Your task to perform on an android device: Open the calendar app, open the side menu, and click the "Day" option Image 0: 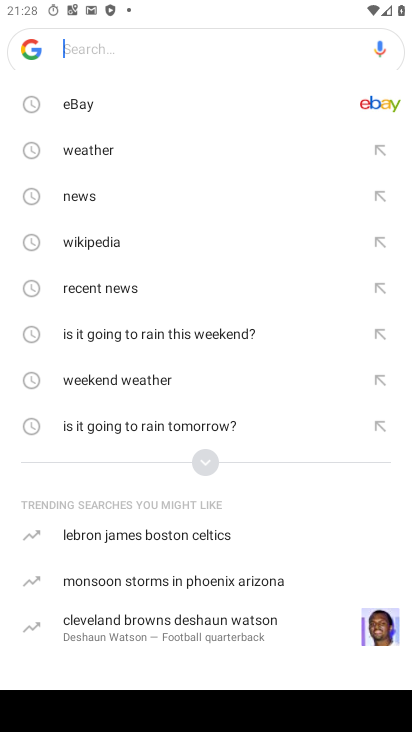
Step 0: press home button
Your task to perform on an android device: Open the calendar app, open the side menu, and click the "Day" option Image 1: 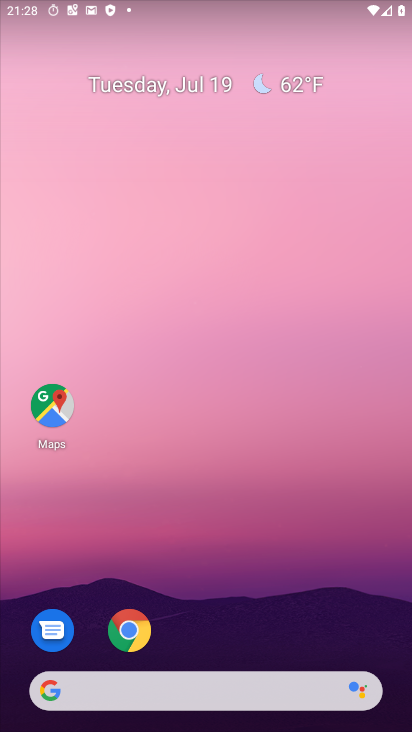
Step 1: drag from (33, 687) to (310, 5)
Your task to perform on an android device: Open the calendar app, open the side menu, and click the "Day" option Image 2: 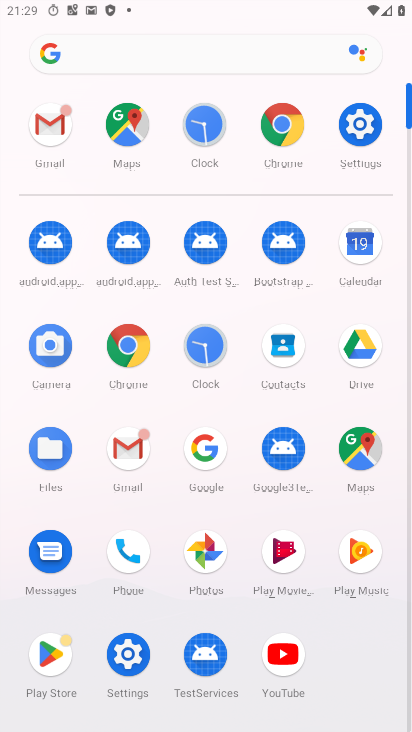
Step 2: click (367, 251)
Your task to perform on an android device: Open the calendar app, open the side menu, and click the "Day" option Image 3: 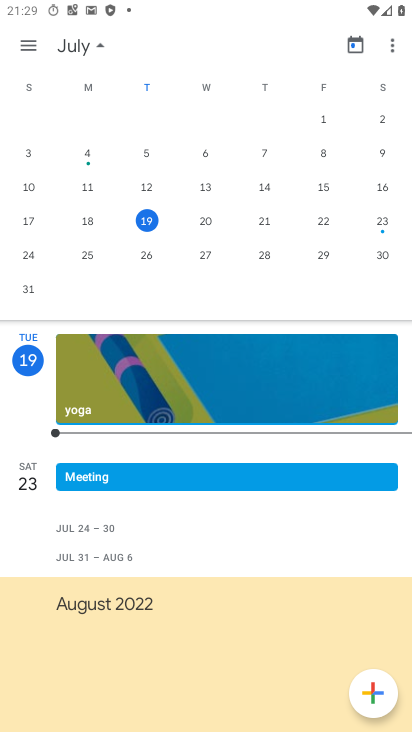
Step 3: click (24, 62)
Your task to perform on an android device: Open the calendar app, open the side menu, and click the "Day" option Image 4: 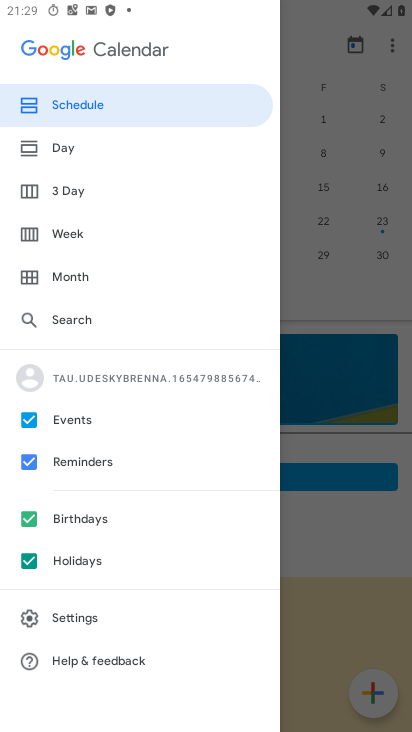
Step 4: click (75, 152)
Your task to perform on an android device: Open the calendar app, open the side menu, and click the "Day" option Image 5: 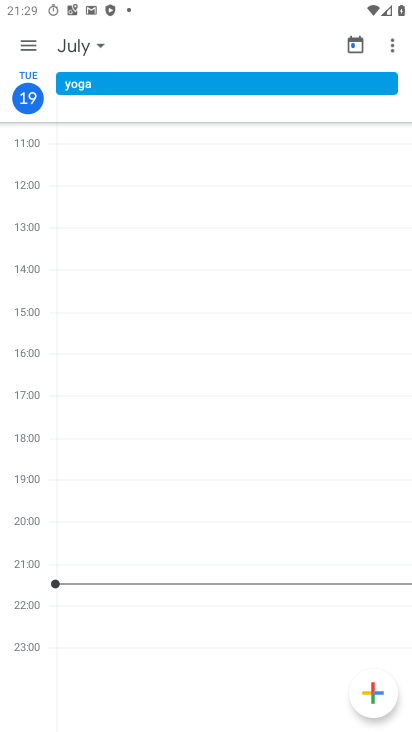
Step 5: task complete